Your task to perform on an android device: change the clock display to digital Image 0: 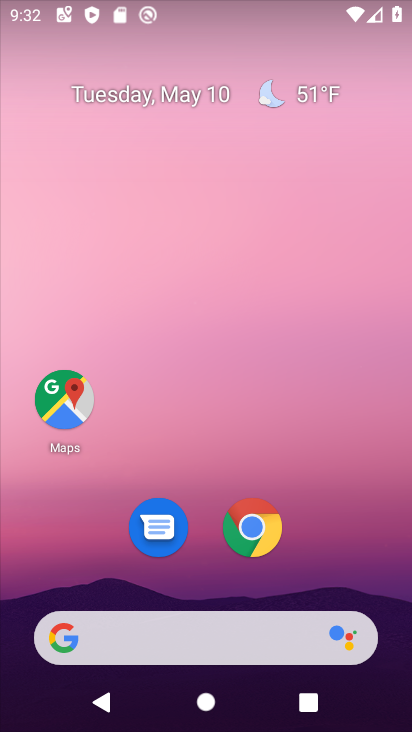
Step 0: drag from (227, 728) to (223, 105)
Your task to perform on an android device: change the clock display to digital Image 1: 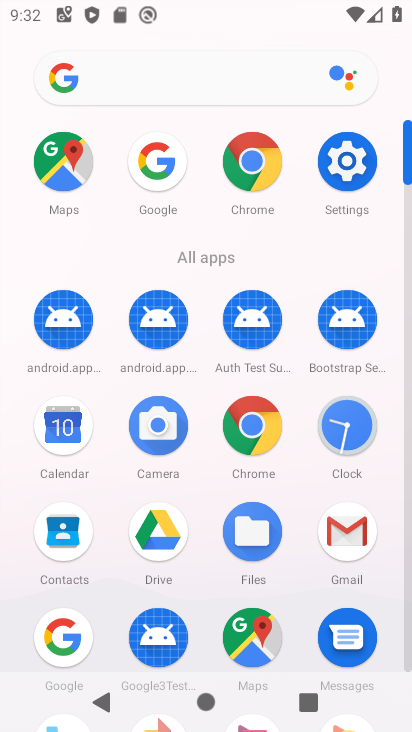
Step 1: click (360, 429)
Your task to perform on an android device: change the clock display to digital Image 2: 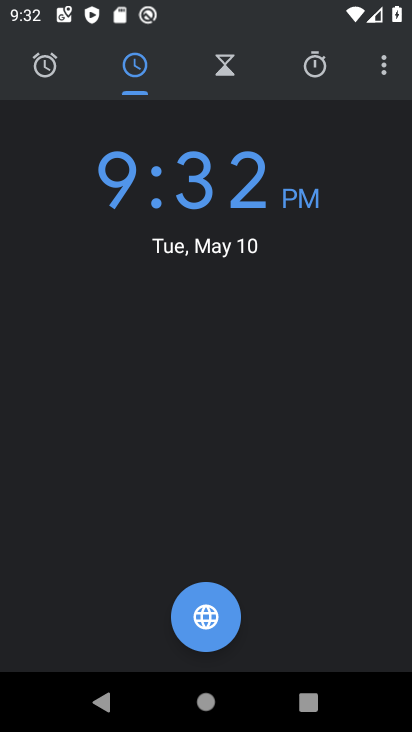
Step 2: click (385, 75)
Your task to perform on an android device: change the clock display to digital Image 3: 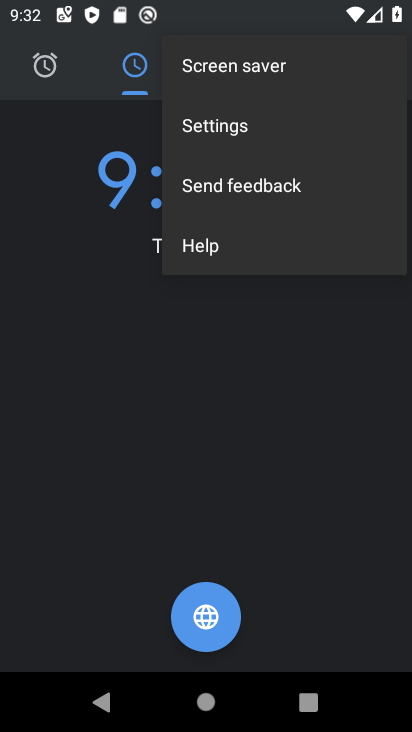
Step 3: click (232, 120)
Your task to perform on an android device: change the clock display to digital Image 4: 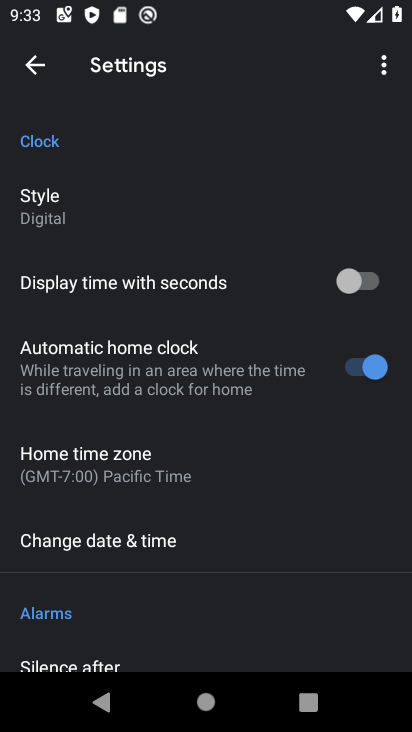
Step 4: task complete